Your task to perform on an android device: What's the weather going to be tomorrow? Image 0: 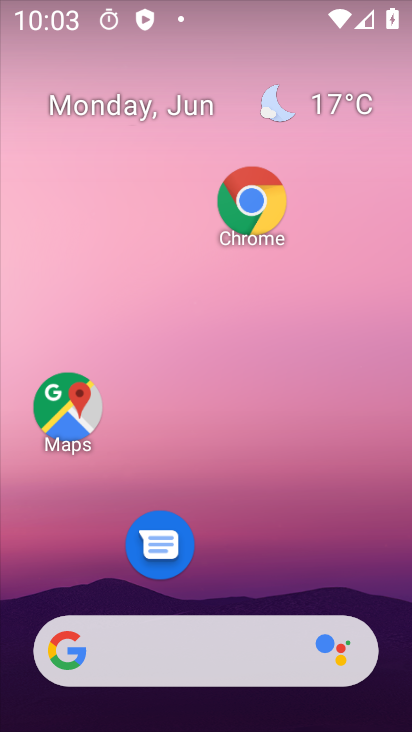
Step 0: click (239, 636)
Your task to perform on an android device: What's the weather going to be tomorrow? Image 1: 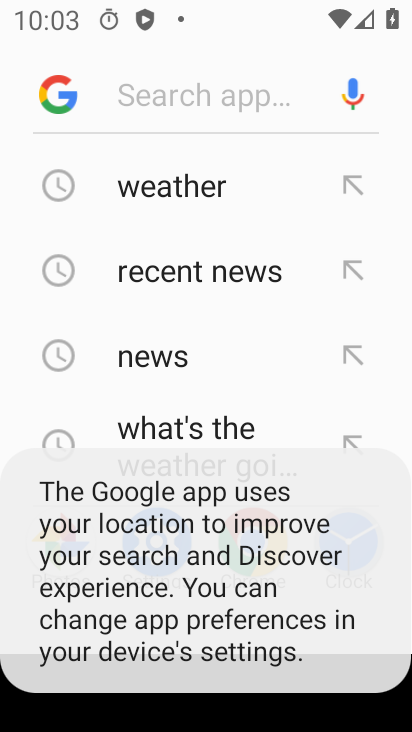
Step 1: click (170, 181)
Your task to perform on an android device: What's the weather going to be tomorrow? Image 2: 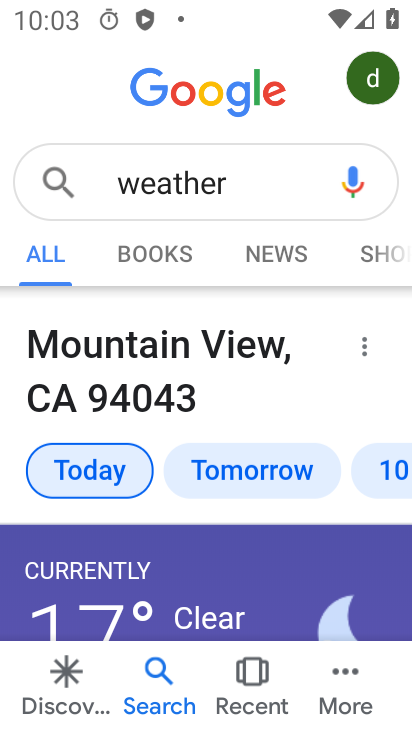
Step 2: click (285, 469)
Your task to perform on an android device: What's the weather going to be tomorrow? Image 3: 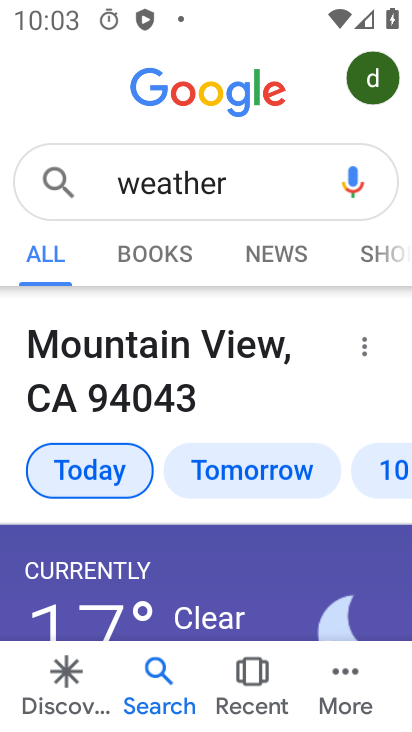
Step 3: click (221, 498)
Your task to perform on an android device: What's the weather going to be tomorrow? Image 4: 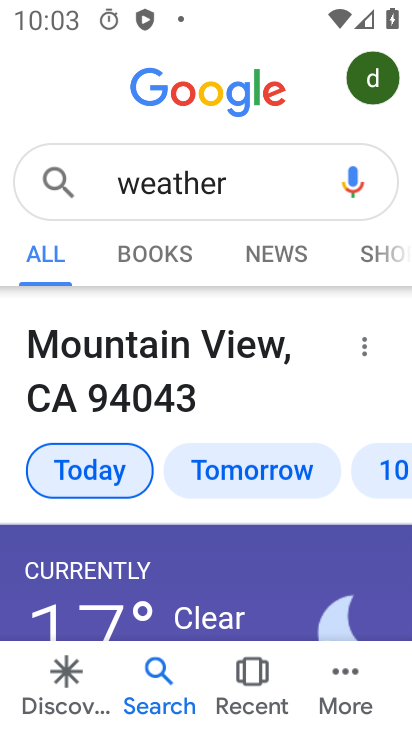
Step 4: click (221, 498)
Your task to perform on an android device: What's the weather going to be tomorrow? Image 5: 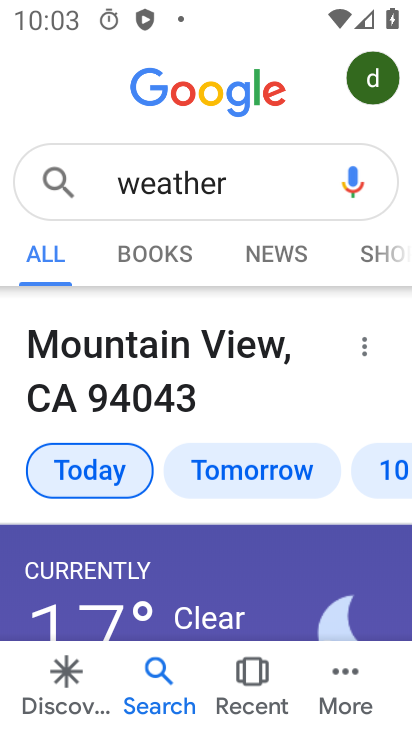
Step 5: task complete